Your task to perform on an android device: turn on javascript in the chrome app Image 0: 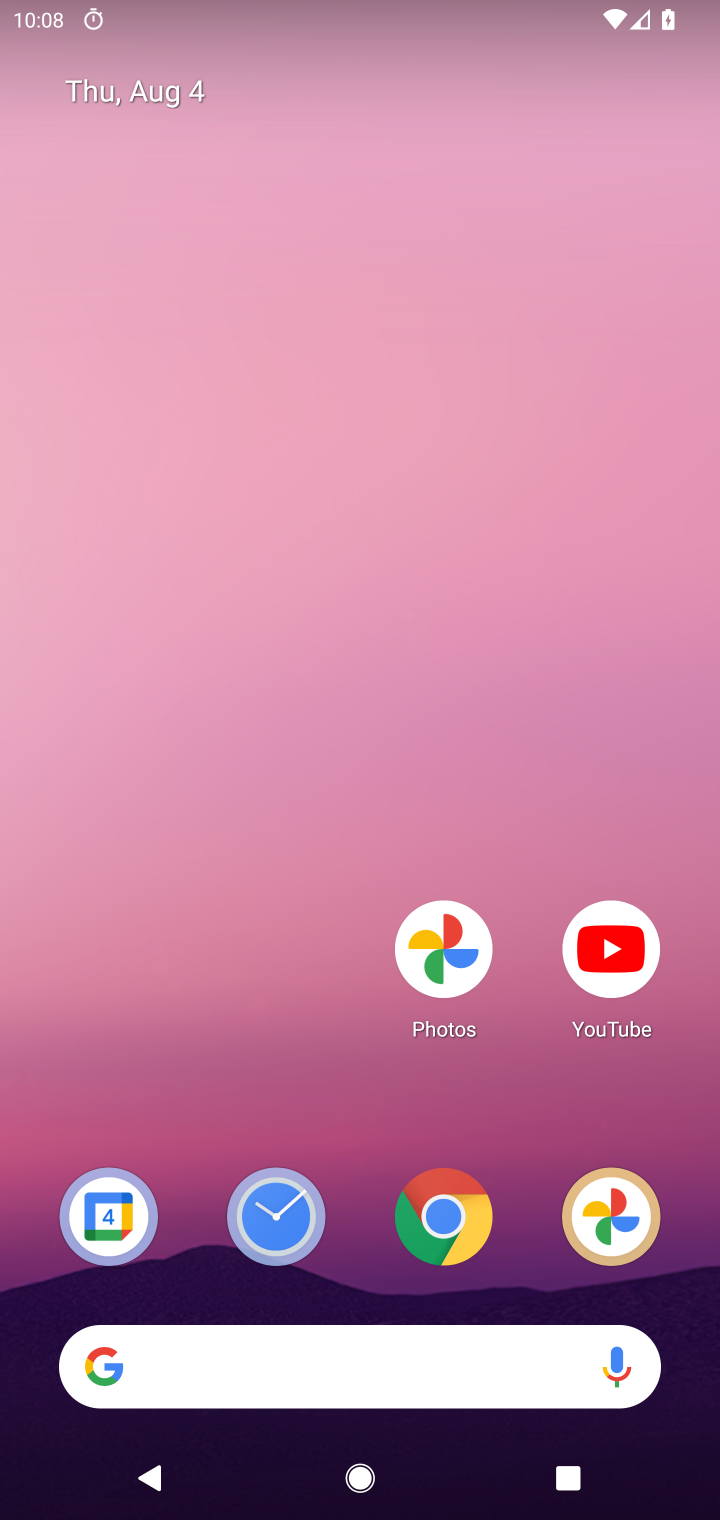
Step 0: click (445, 1214)
Your task to perform on an android device: turn on javascript in the chrome app Image 1: 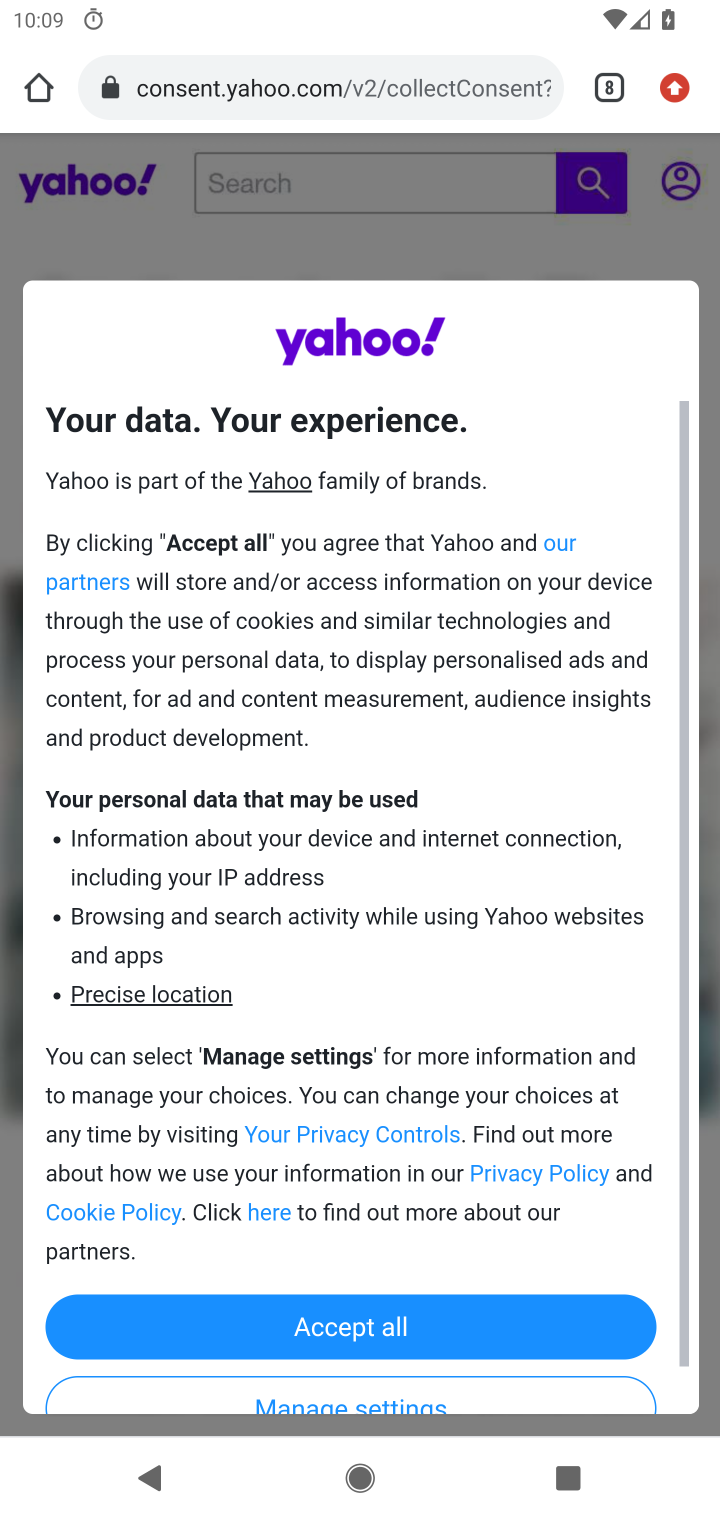
Step 1: click (676, 96)
Your task to perform on an android device: turn on javascript in the chrome app Image 2: 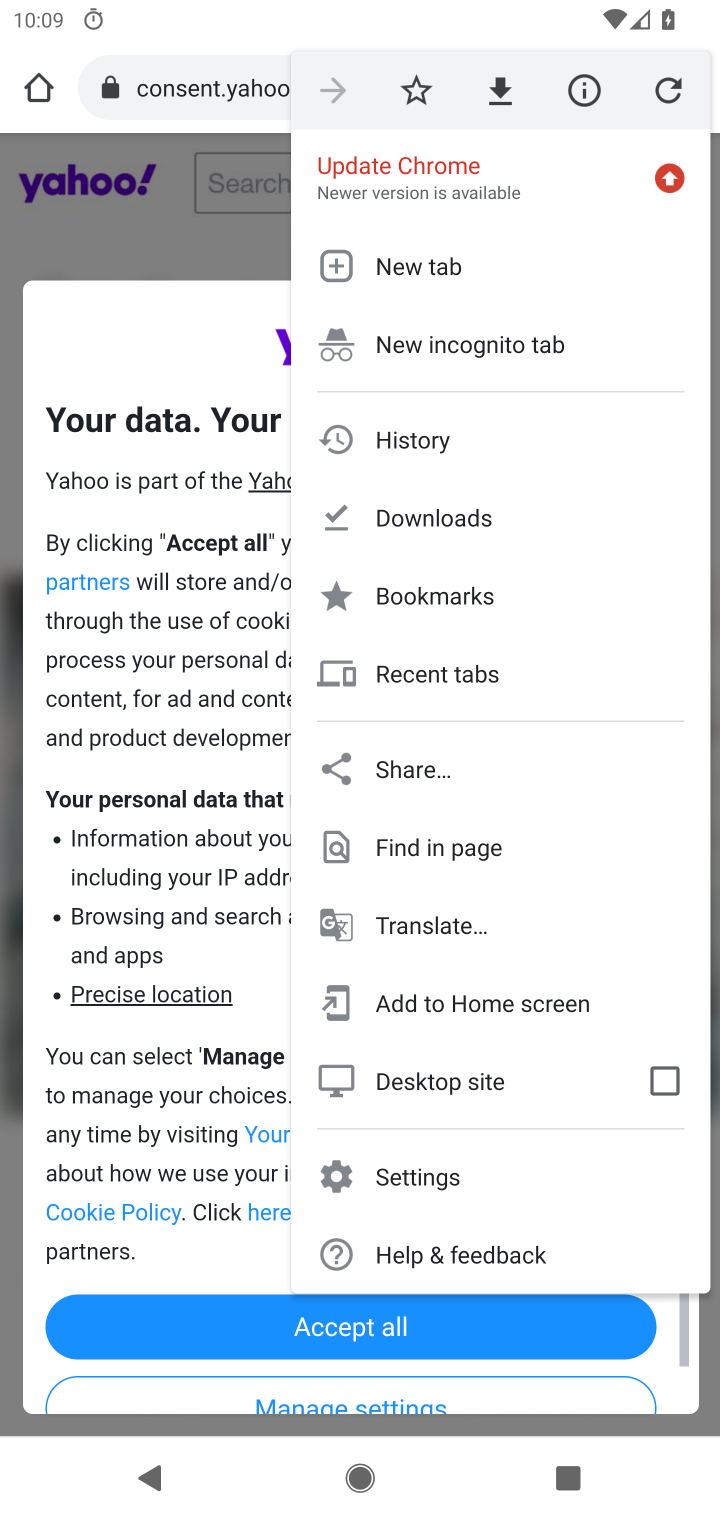
Step 2: click (410, 1170)
Your task to perform on an android device: turn on javascript in the chrome app Image 3: 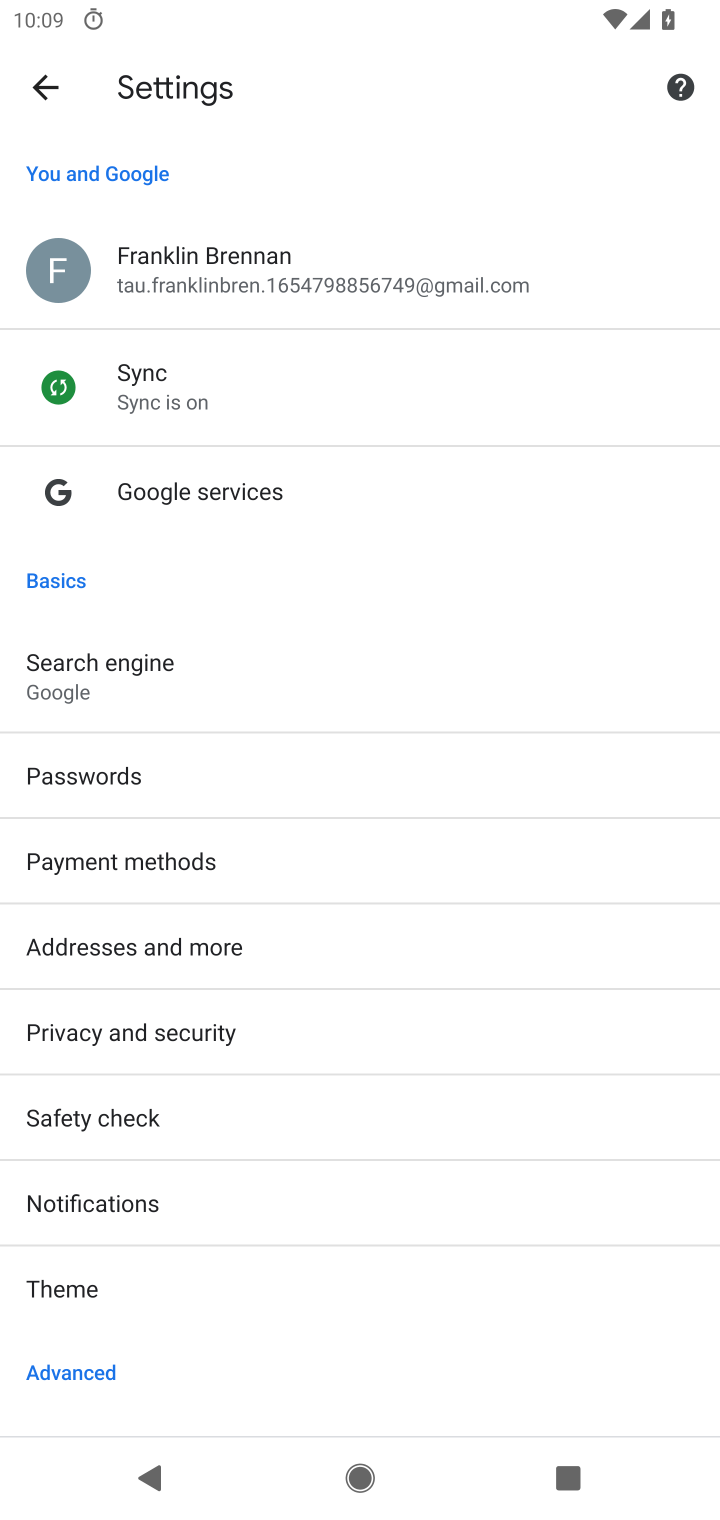
Step 3: drag from (73, 1161) to (141, 507)
Your task to perform on an android device: turn on javascript in the chrome app Image 4: 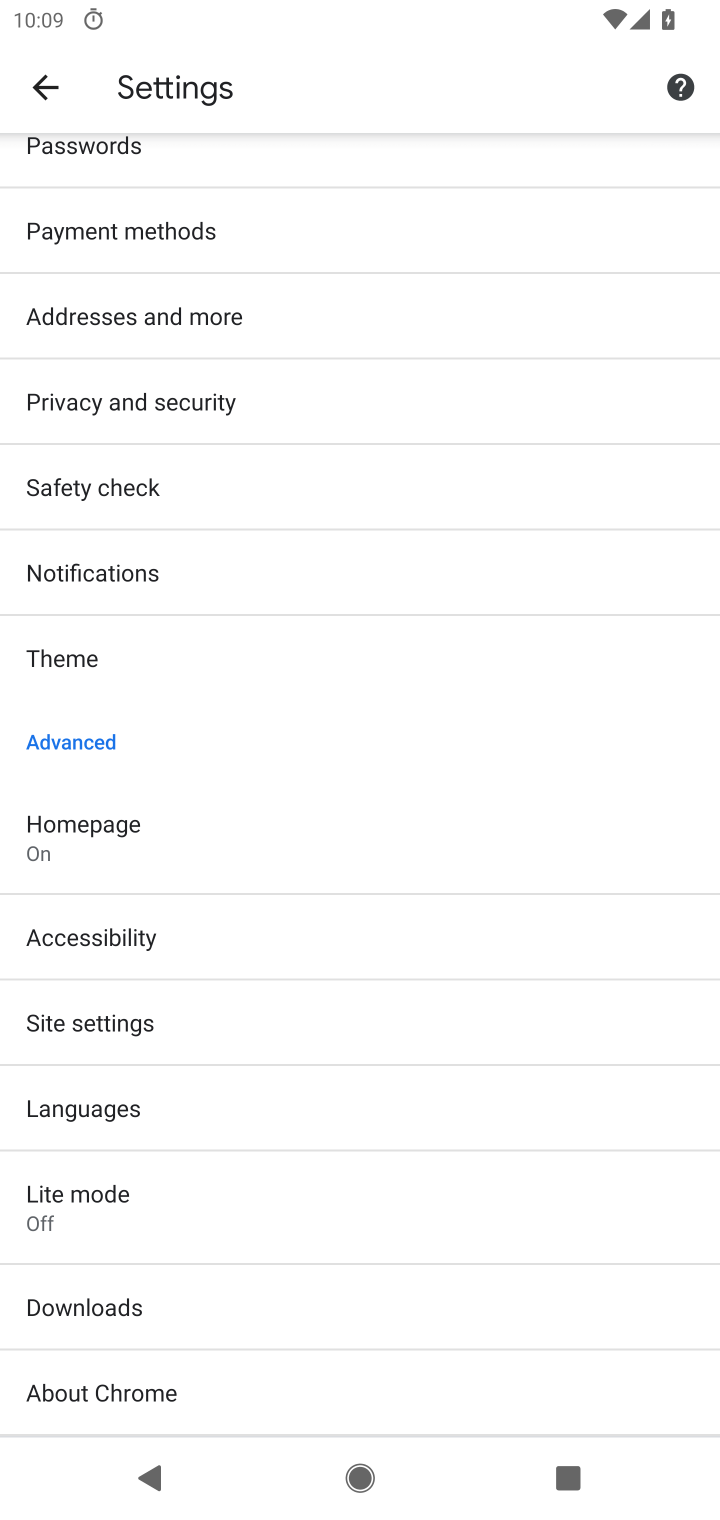
Step 4: click (62, 1027)
Your task to perform on an android device: turn on javascript in the chrome app Image 5: 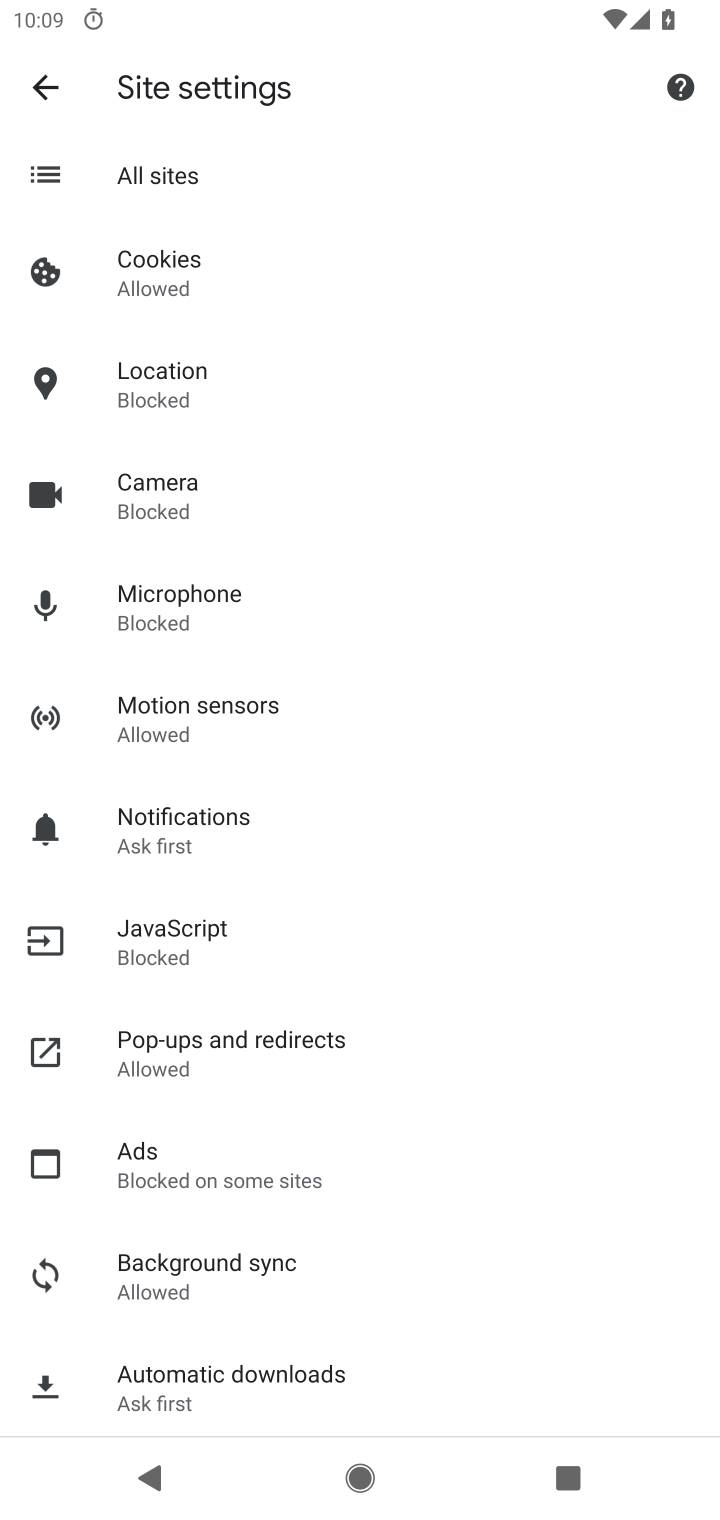
Step 5: click (182, 953)
Your task to perform on an android device: turn on javascript in the chrome app Image 6: 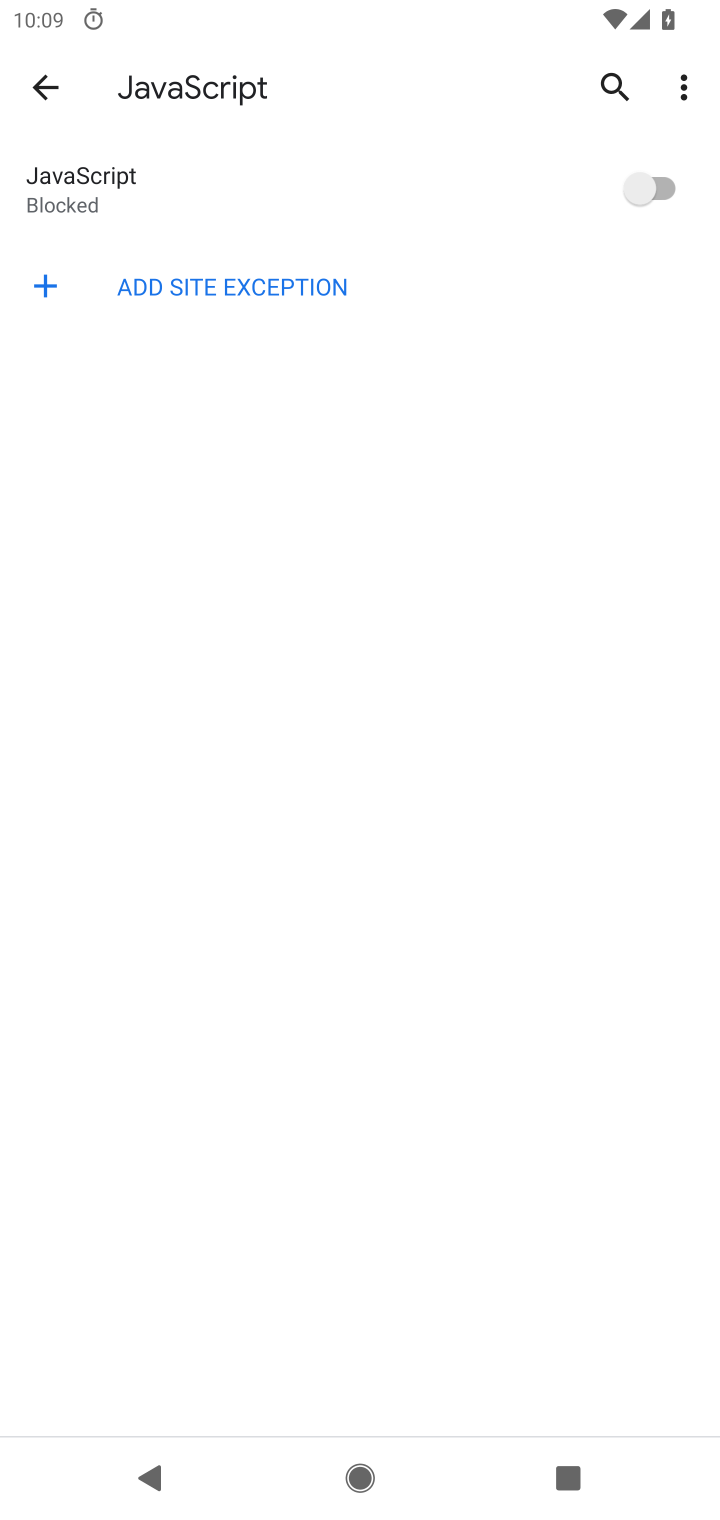
Step 6: click (665, 183)
Your task to perform on an android device: turn on javascript in the chrome app Image 7: 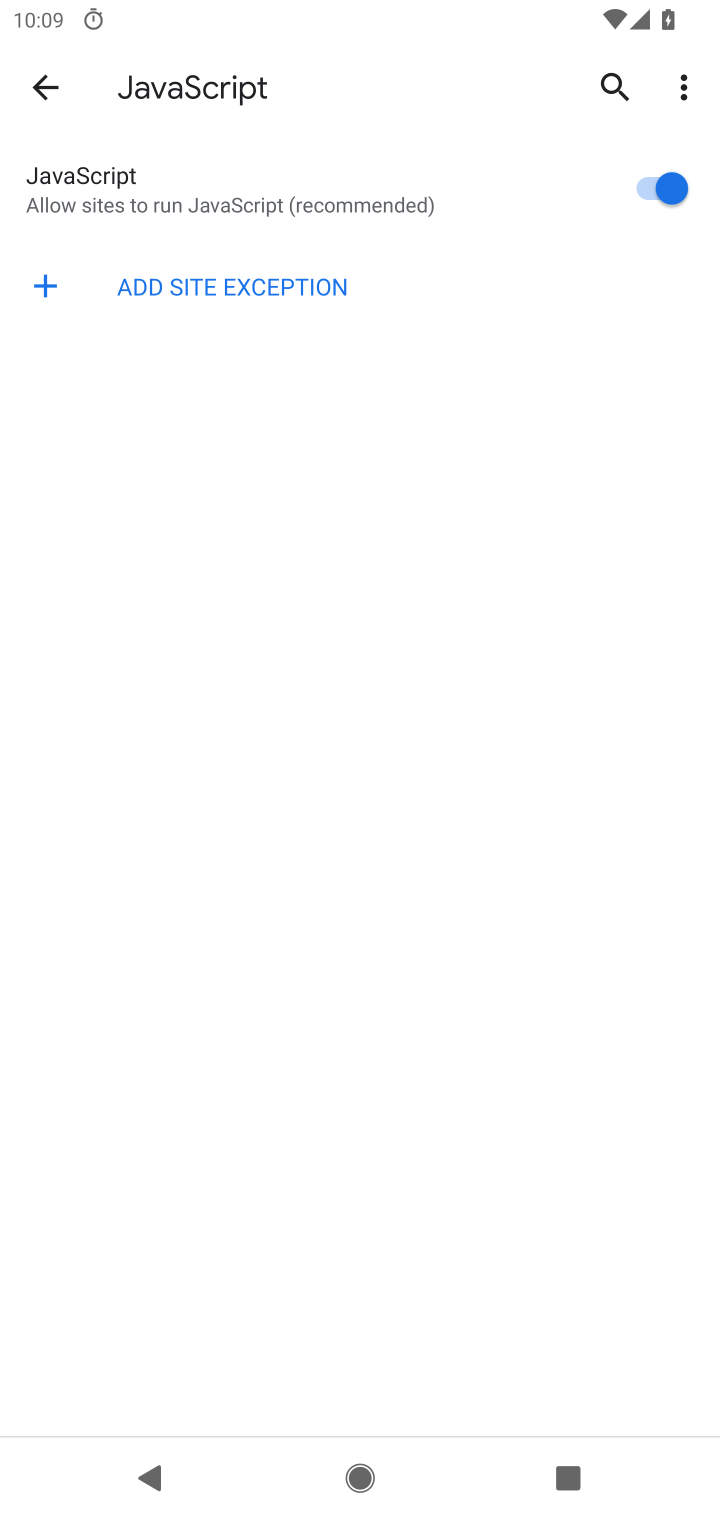
Step 7: task complete